Your task to perform on an android device: allow notifications from all sites in the chrome app Image 0: 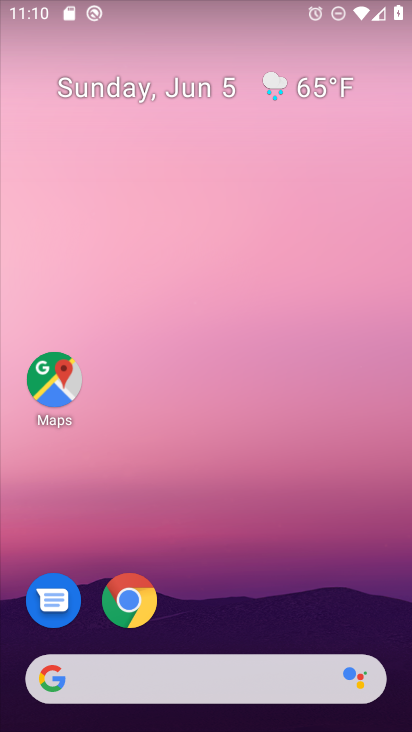
Step 0: drag from (372, 601) to (287, 44)
Your task to perform on an android device: allow notifications from all sites in the chrome app Image 1: 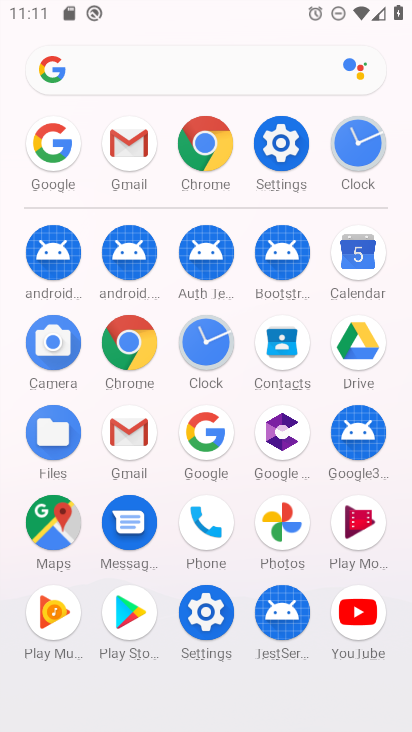
Step 1: click (136, 356)
Your task to perform on an android device: allow notifications from all sites in the chrome app Image 2: 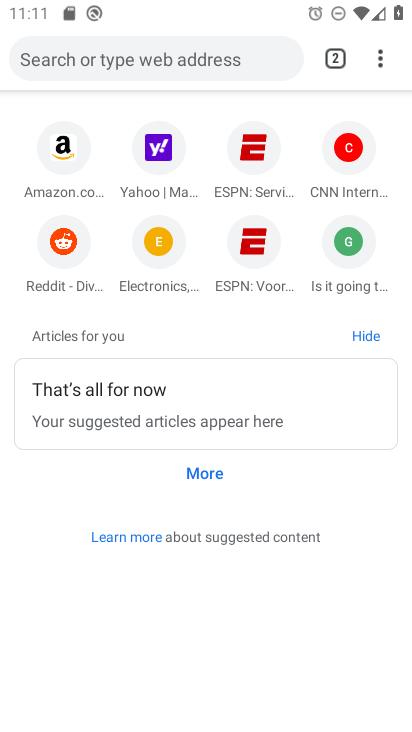
Step 2: click (383, 60)
Your task to perform on an android device: allow notifications from all sites in the chrome app Image 3: 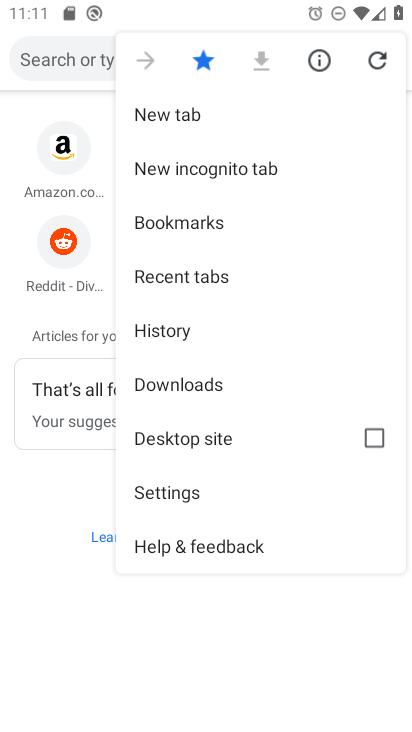
Step 3: click (172, 498)
Your task to perform on an android device: allow notifications from all sites in the chrome app Image 4: 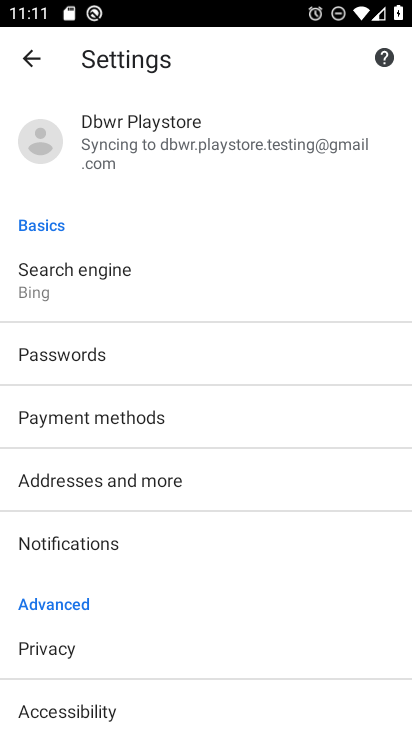
Step 4: click (143, 551)
Your task to perform on an android device: allow notifications from all sites in the chrome app Image 5: 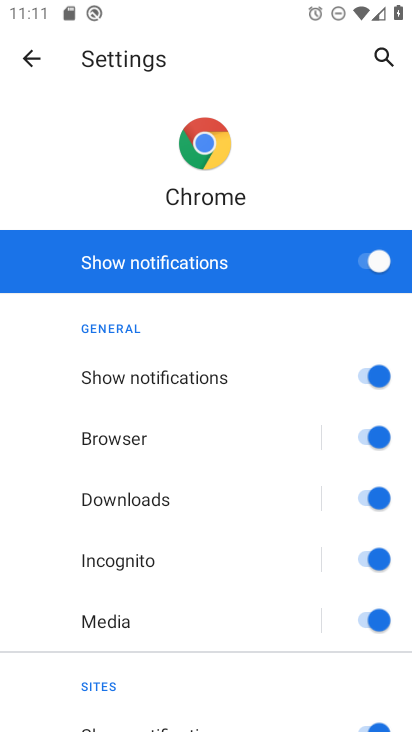
Step 5: task complete